Your task to perform on an android device: Open Google Chrome Image 0: 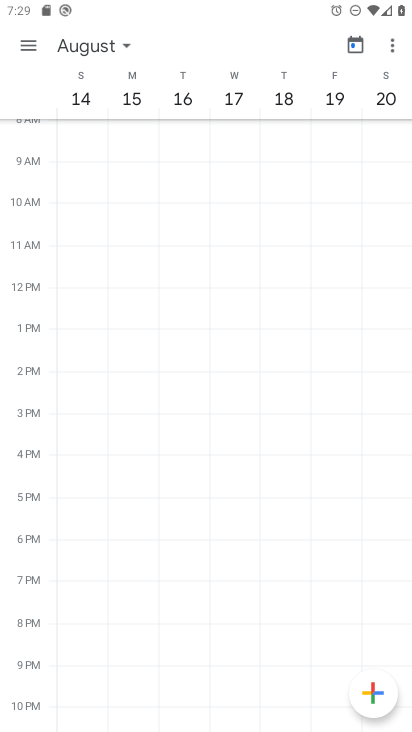
Step 0: press home button
Your task to perform on an android device: Open Google Chrome Image 1: 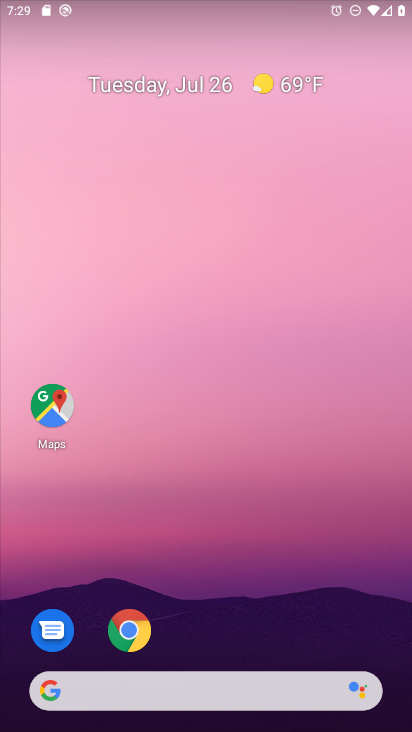
Step 1: drag from (240, 577) to (254, 165)
Your task to perform on an android device: Open Google Chrome Image 2: 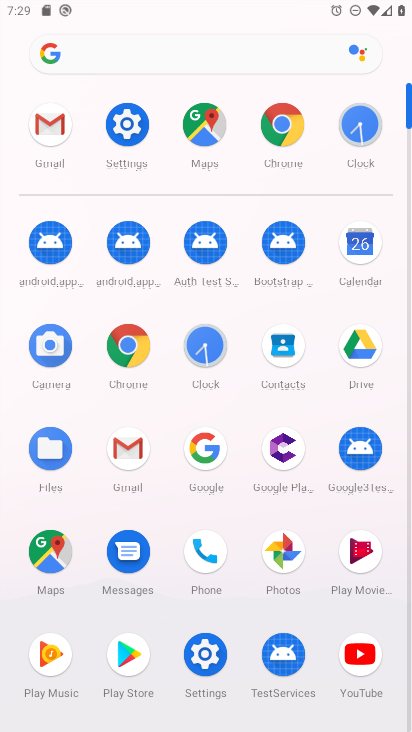
Step 2: click (134, 362)
Your task to perform on an android device: Open Google Chrome Image 3: 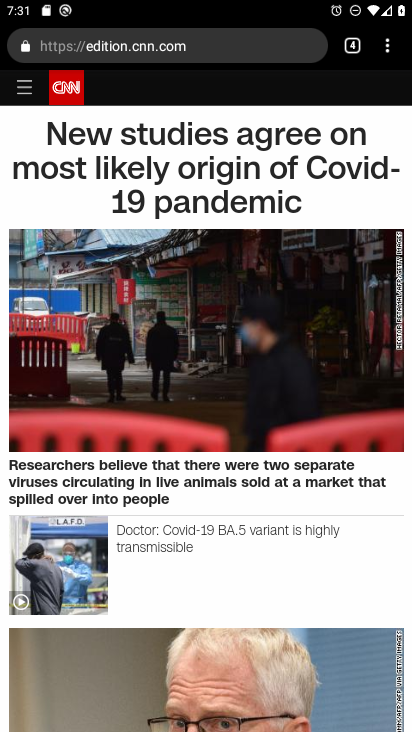
Step 3: task complete